Your task to perform on an android device: open app "Upside-Cash back on gas & food" (install if not already installed) Image 0: 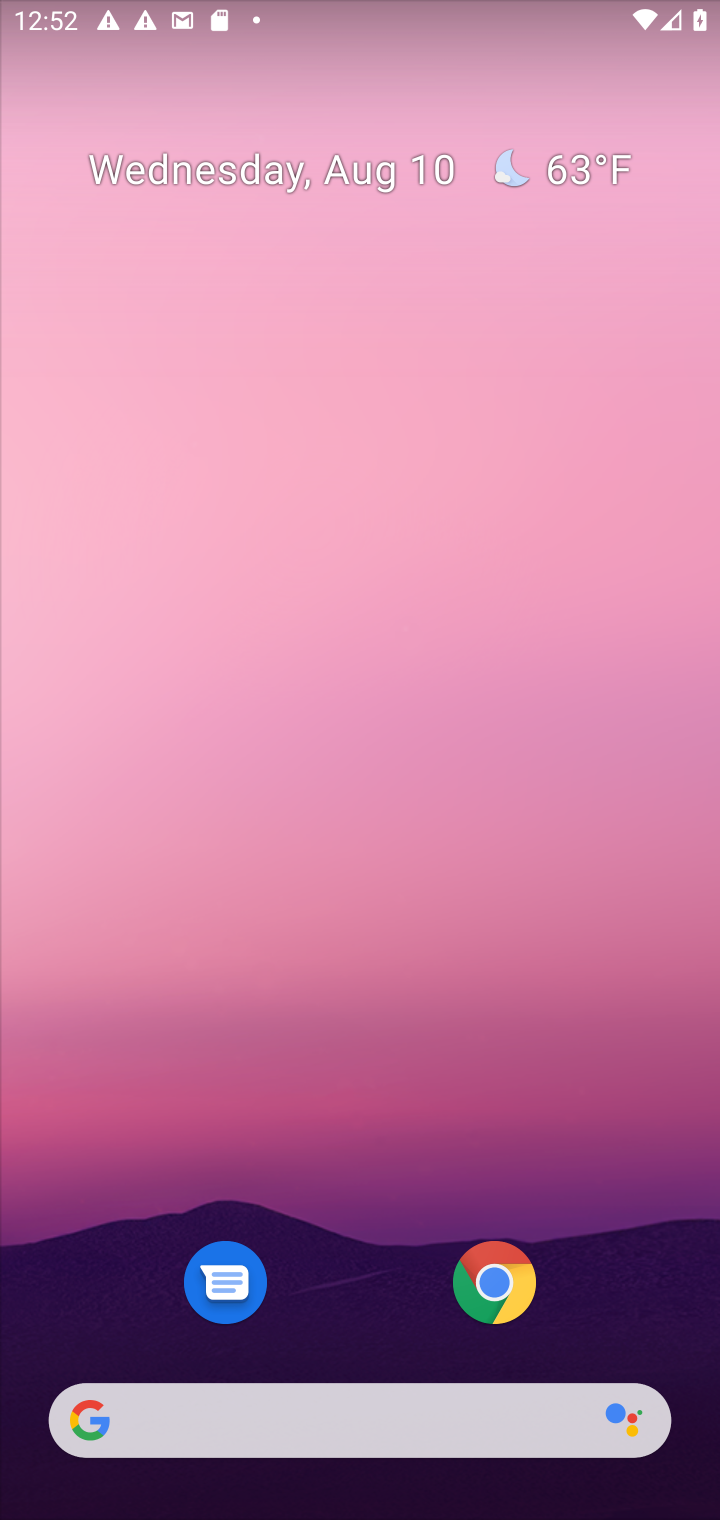
Step 0: drag from (230, 1129) to (240, 509)
Your task to perform on an android device: open app "Upside-Cash back on gas & food" (install if not already installed) Image 1: 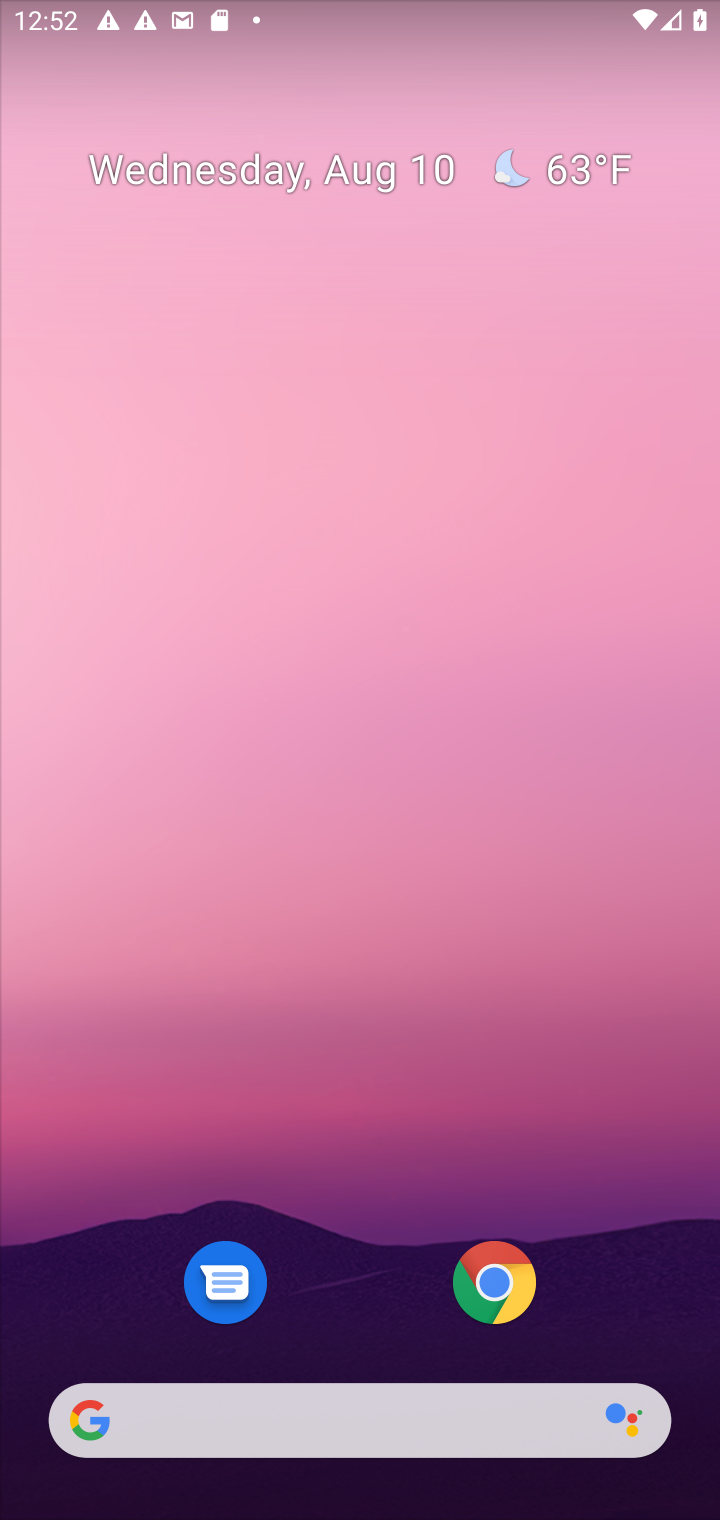
Step 1: drag from (394, 1336) to (371, 605)
Your task to perform on an android device: open app "Upside-Cash back on gas & food" (install if not already installed) Image 2: 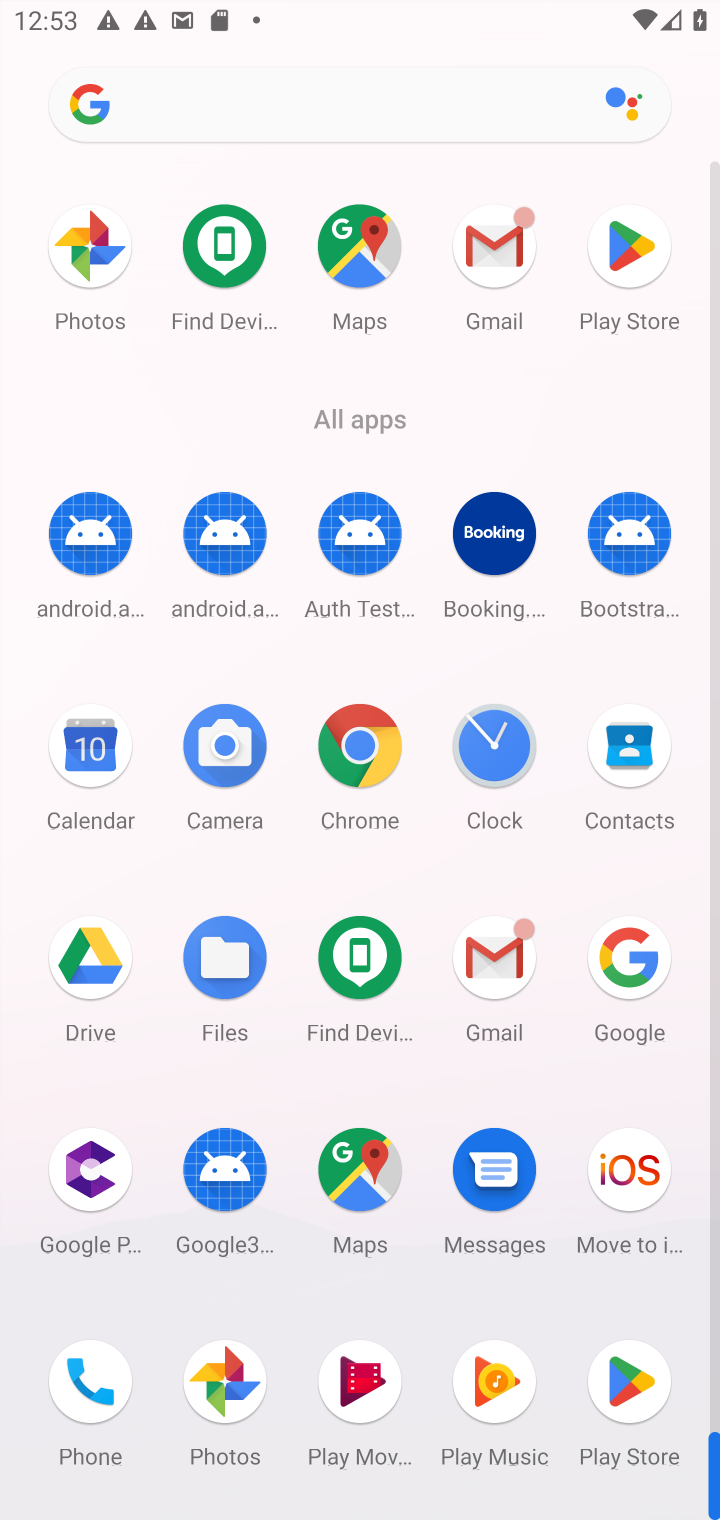
Step 2: click (623, 210)
Your task to perform on an android device: open app "Upside-Cash back on gas & food" (install if not already installed) Image 3: 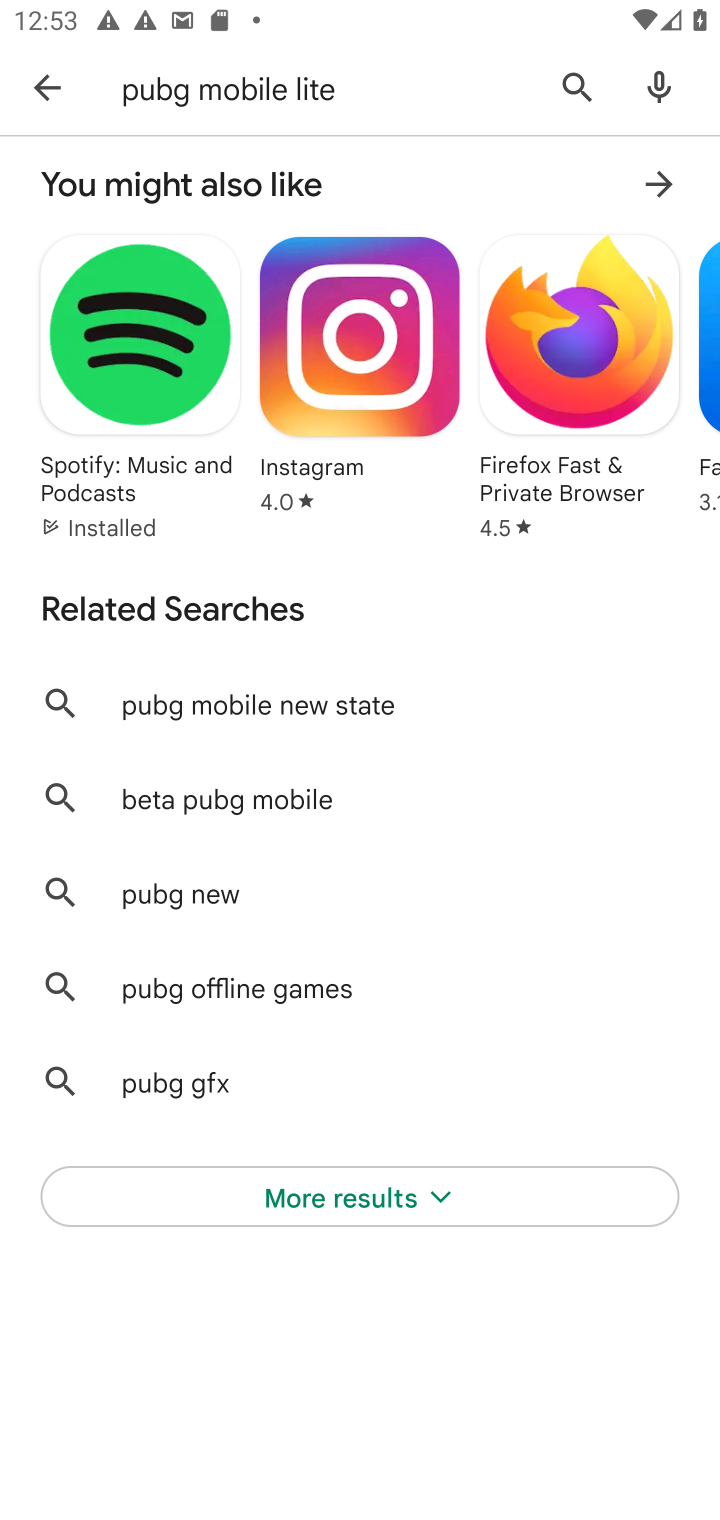
Step 3: click (65, 82)
Your task to perform on an android device: open app "Upside-Cash back on gas & food" (install if not already installed) Image 4: 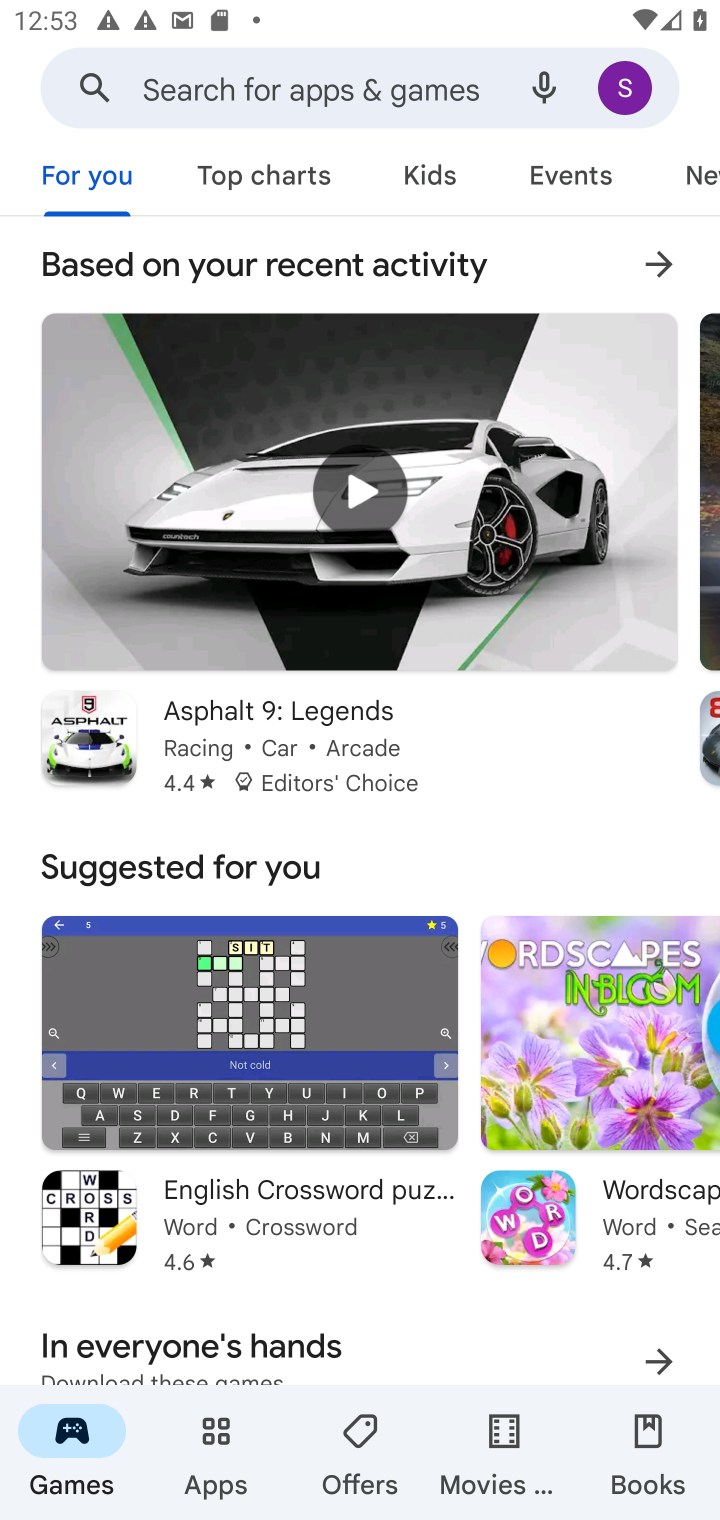
Step 4: click (364, 85)
Your task to perform on an android device: open app "Upside-Cash back on gas & food" (install if not already installed) Image 5: 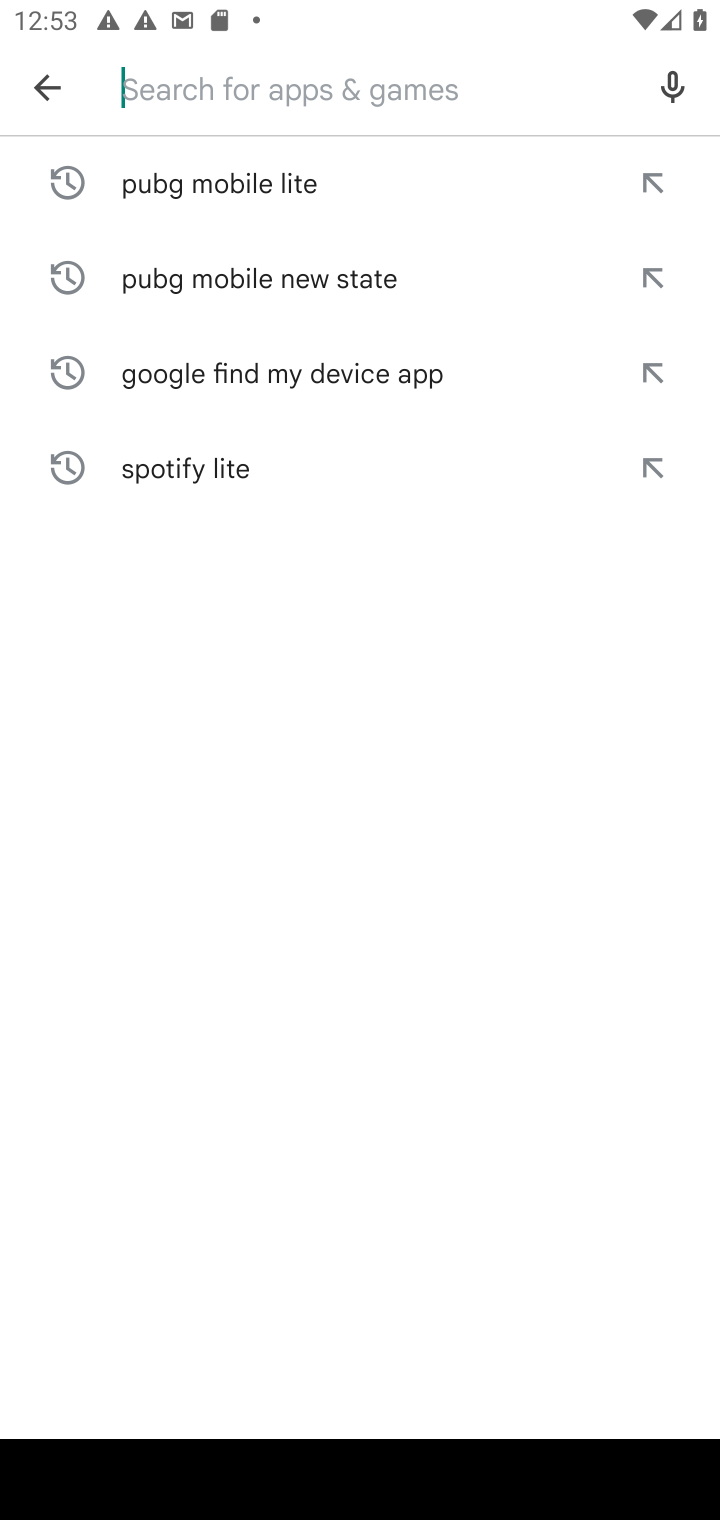
Step 5: type "Upside-Cash back on gas & food "
Your task to perform on an android device: open app "Upside-Cash back on gas & food" (install if not already installed) Image 6: 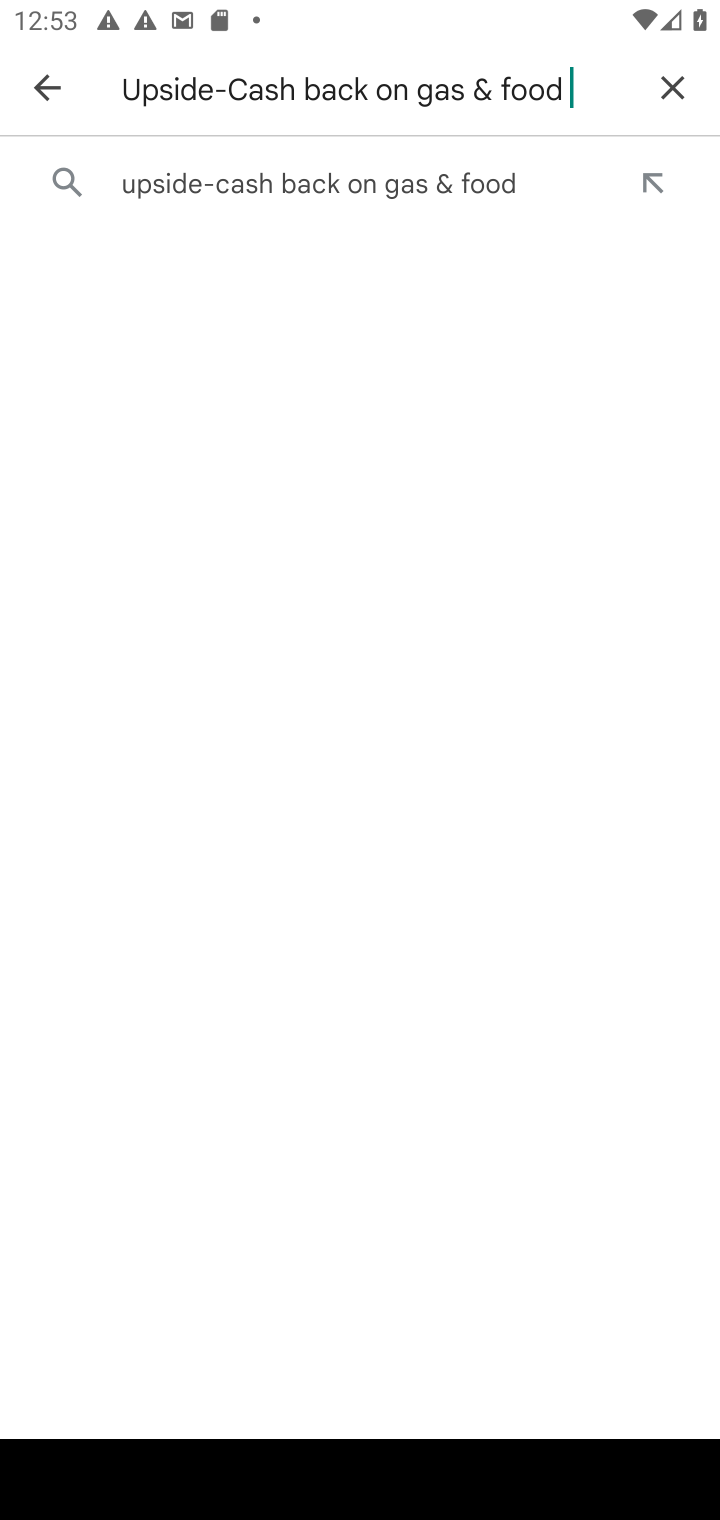
Step 6: click (291, 201)
Your task to perform on an android device: open app "Upside-Cash back on gas & food" (install if not already installed) Image 7: 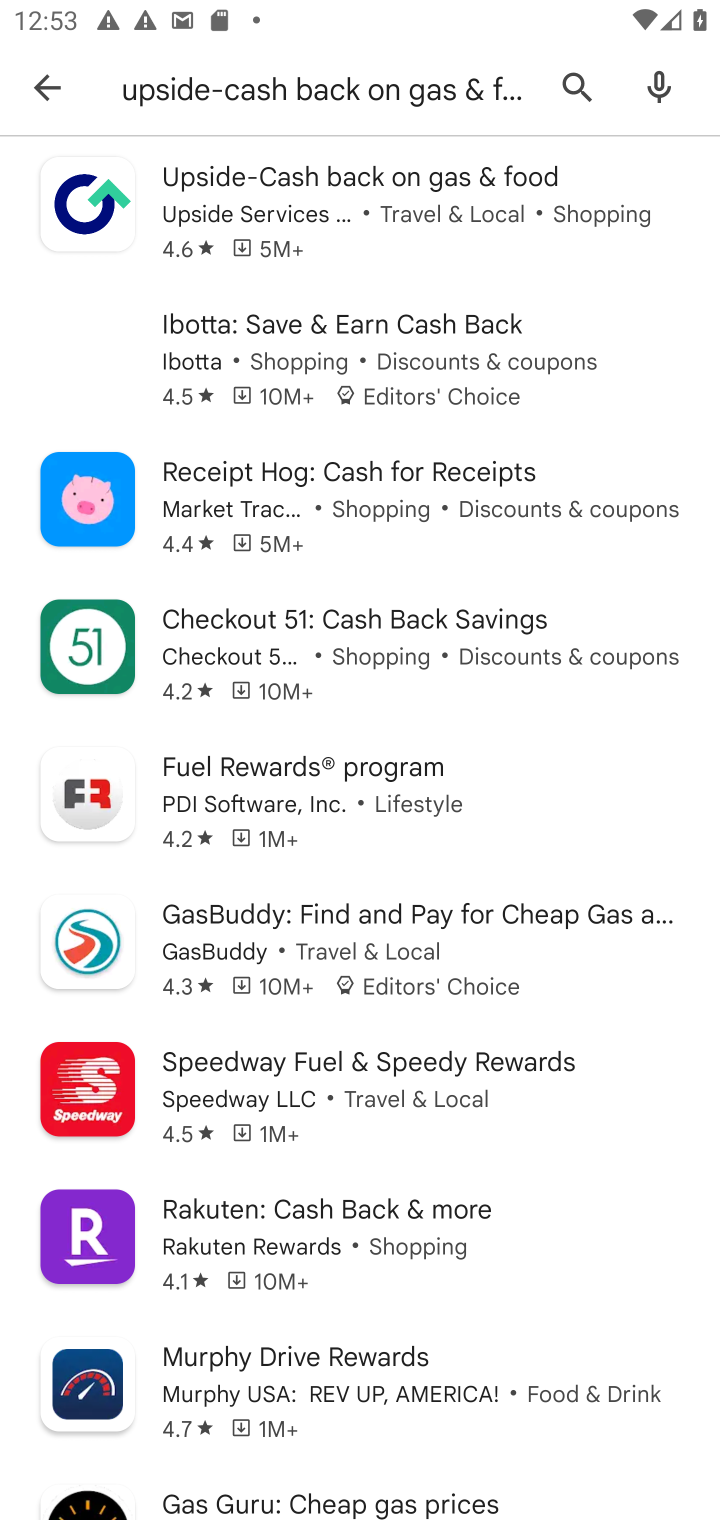
Step 7: click (377, 208)
Your task to perform on an android device: open app "Upside-Cash back on gas & food" (install if not already installed) Image 8: 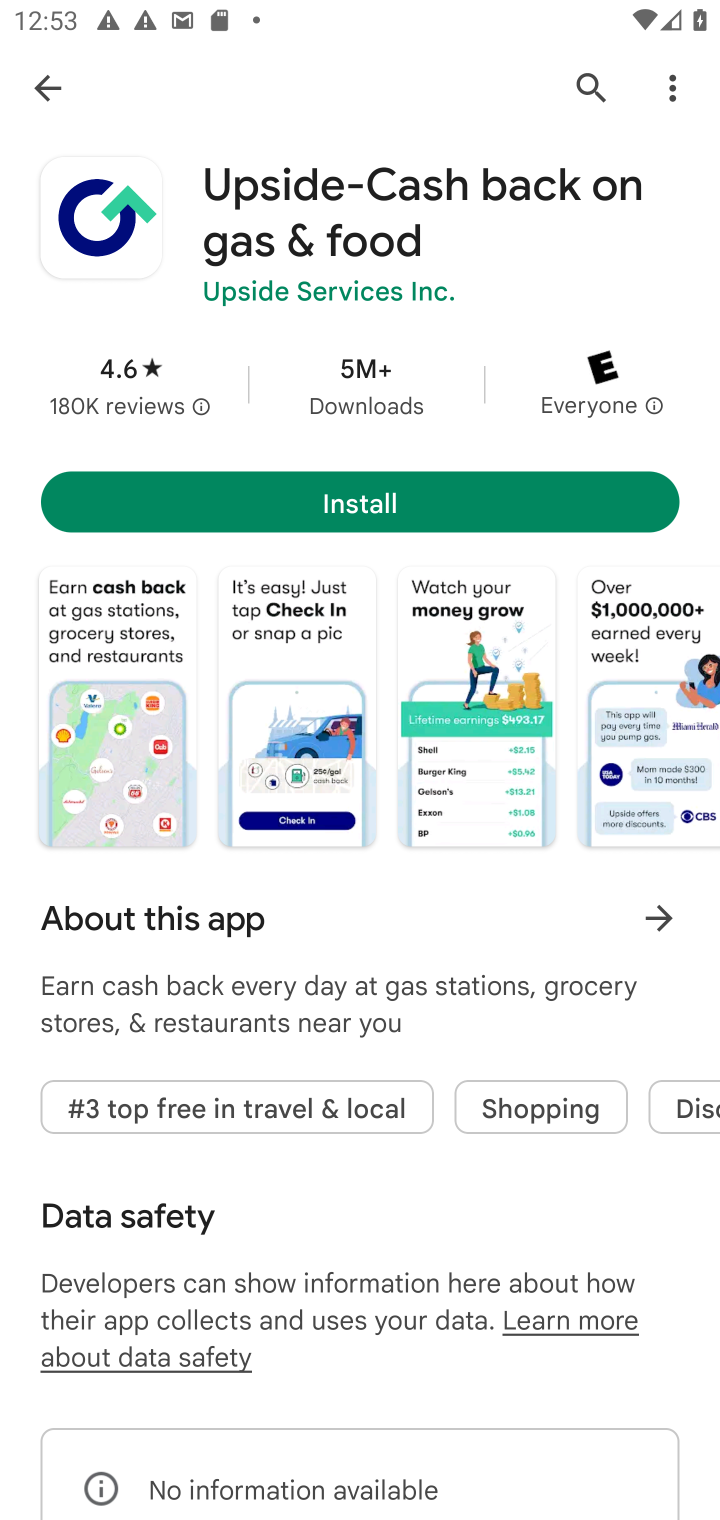
Step 8: click (421, 504)
Your task to perform on an android device: open app "Upside-Cash back on gas & food" (install if not already installed) Image 9: 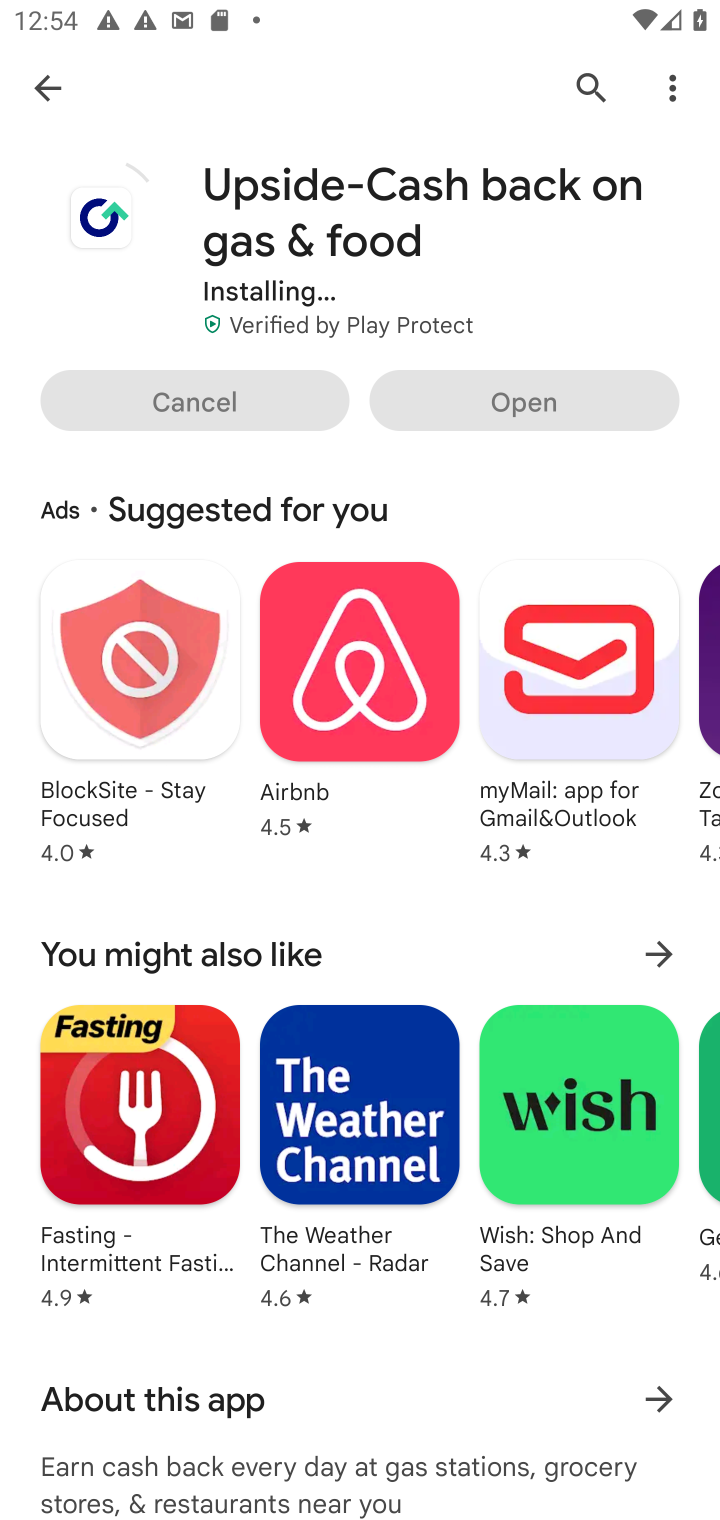
Step 9: task complete